Your task to perform on an android device: Do I have any events today? Image 0: 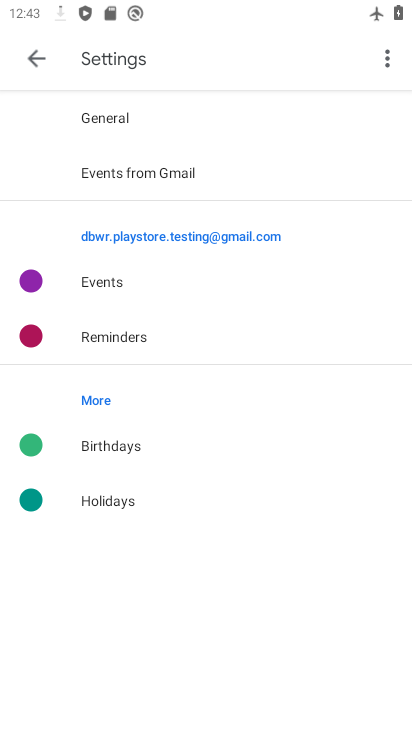
Step 0: press home button
Your task to perform on an android device: Do I have any events today? Image 1: 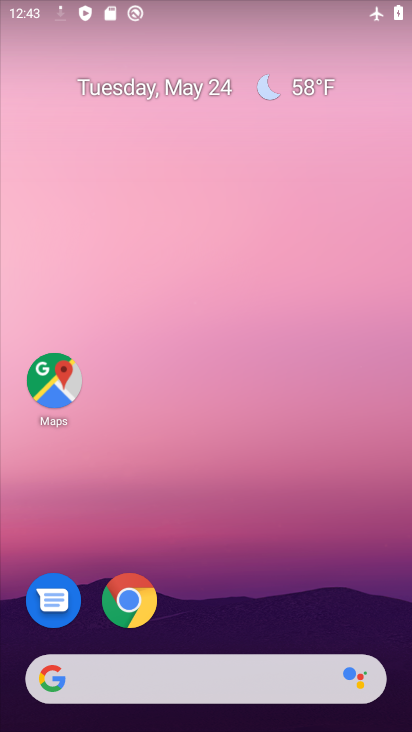
Step 1: drag from (302, 568) to (230, 7)
Your task to perform on an android device: Do I have any events today? Image 2: 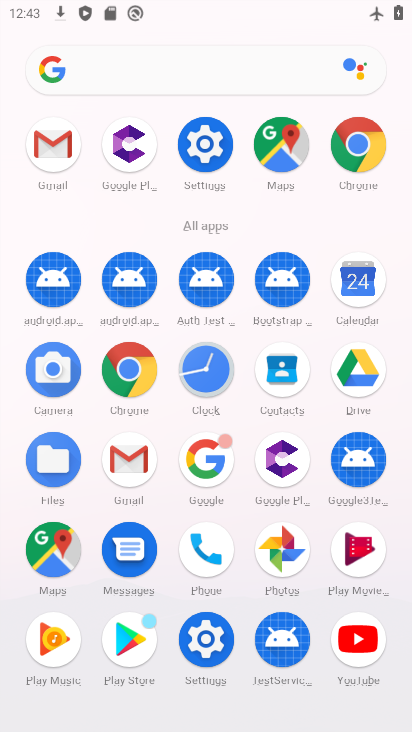
Step 2: click (361, 275)
Your task to perform on an android device: Do I have any events today? Image 3: 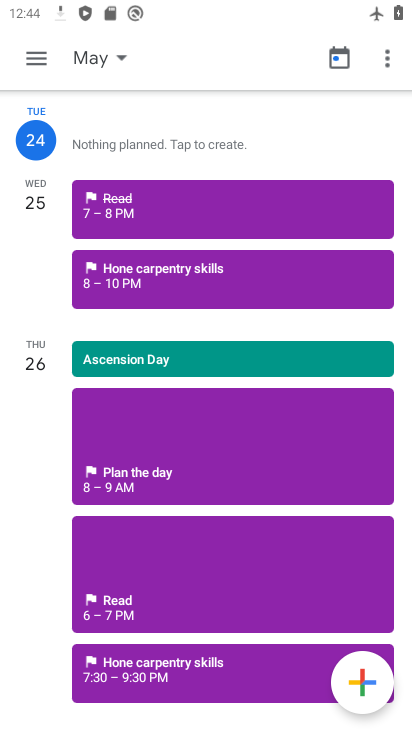
Step 3: task complete